Your task to perform on an android device: Show me the alarms in the clock app Image 0: 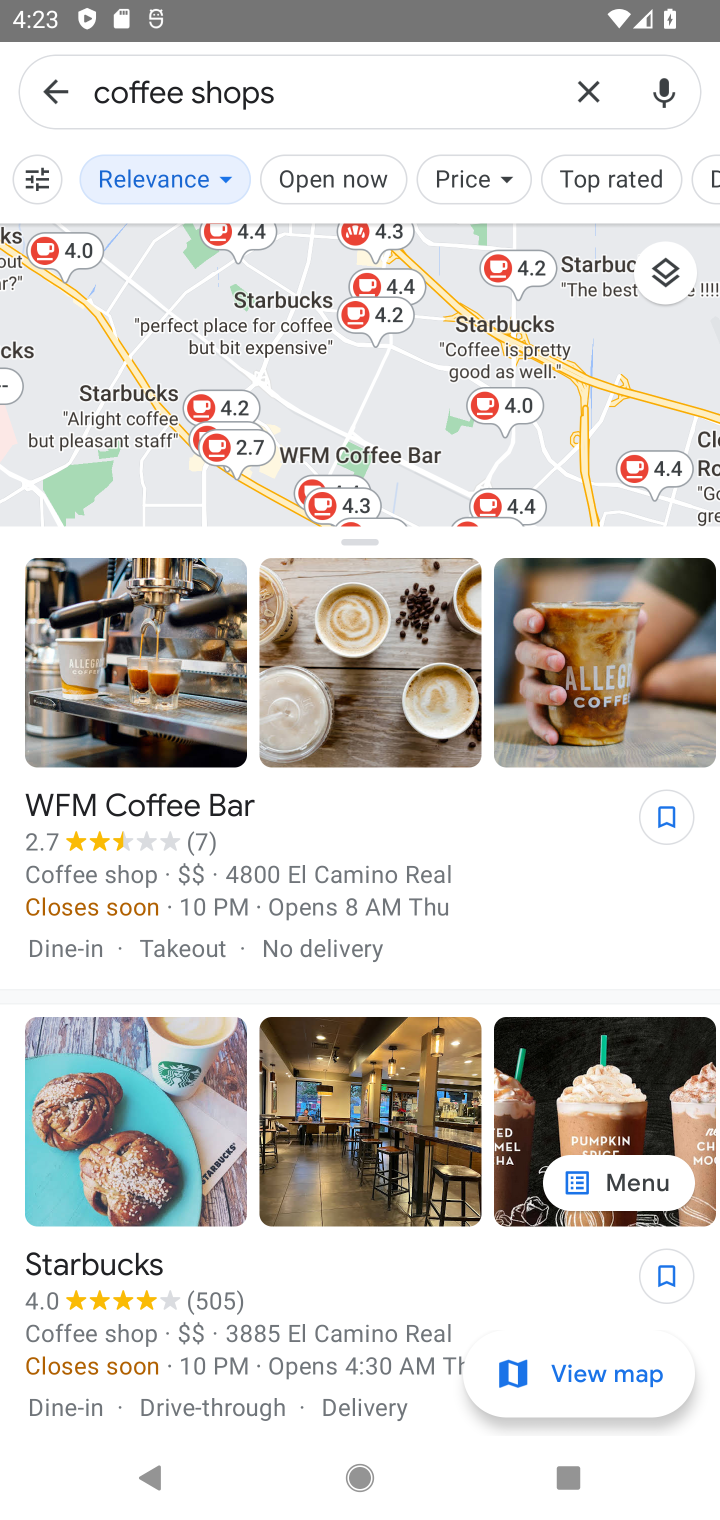
Step 0: press back button
Your task to perform on an android device: Show me the alarms in the clock app Image 1: 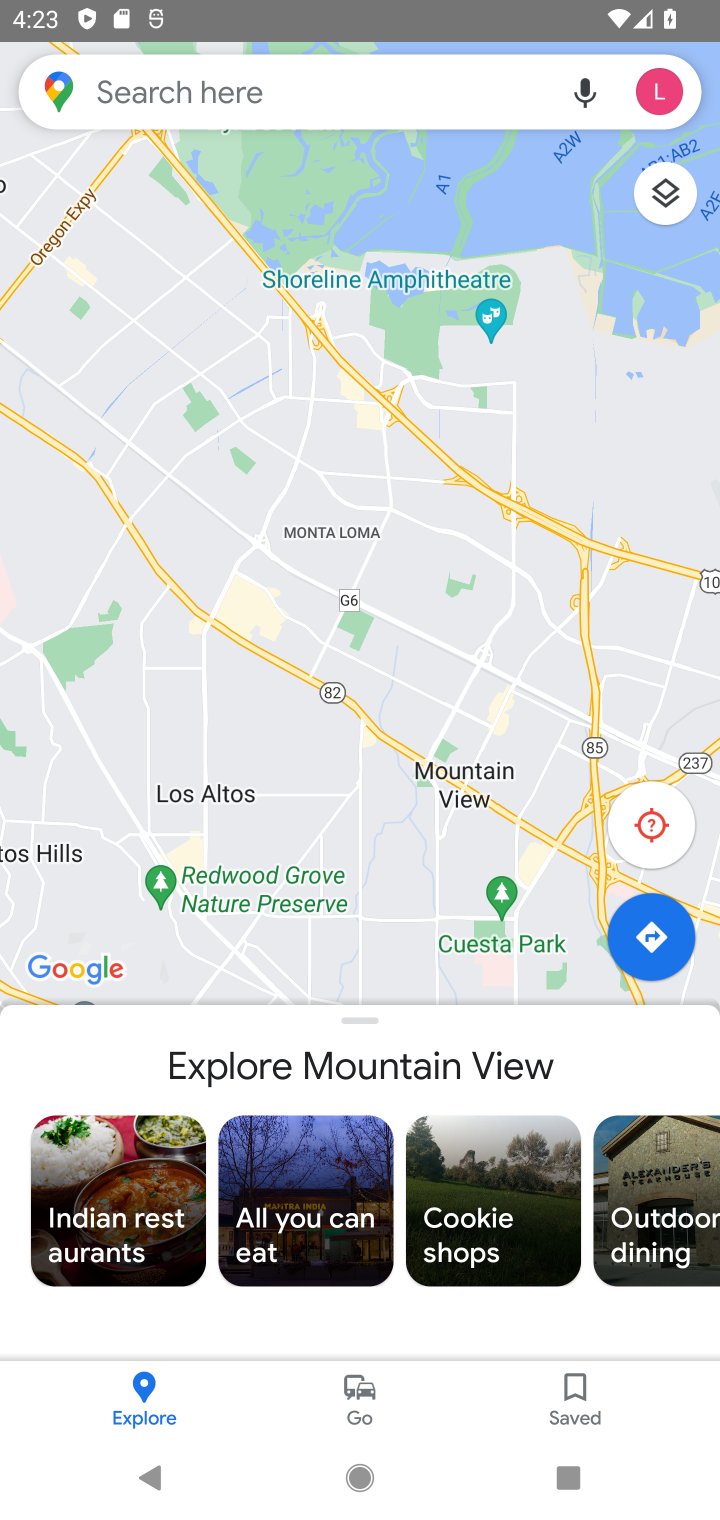
Step 1: press back button
Your task to perform on an android device: Show me the alarms in the clock app Image 2: 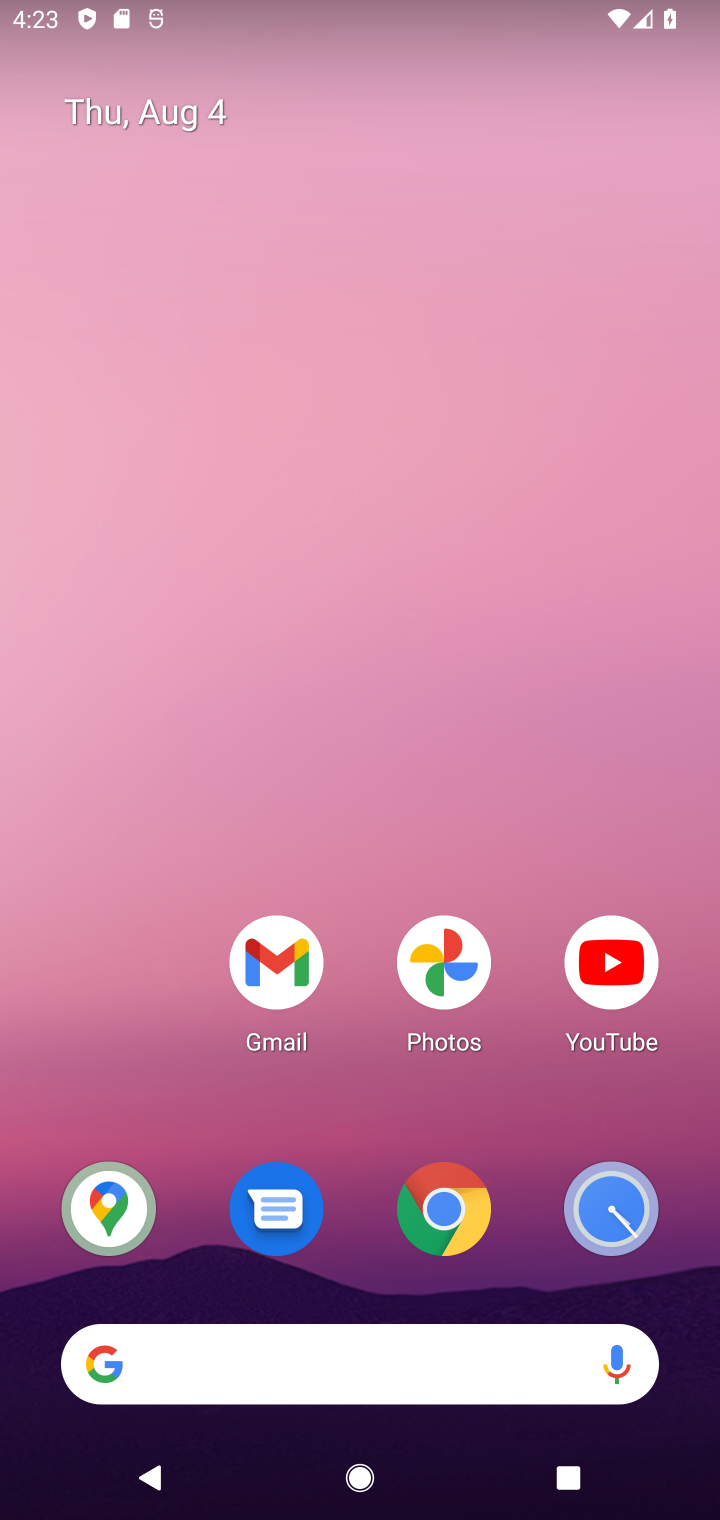
Step 2: click (608, 1202)
Your task to perform on an android device: Show me the alarms in the clock app Image 3: 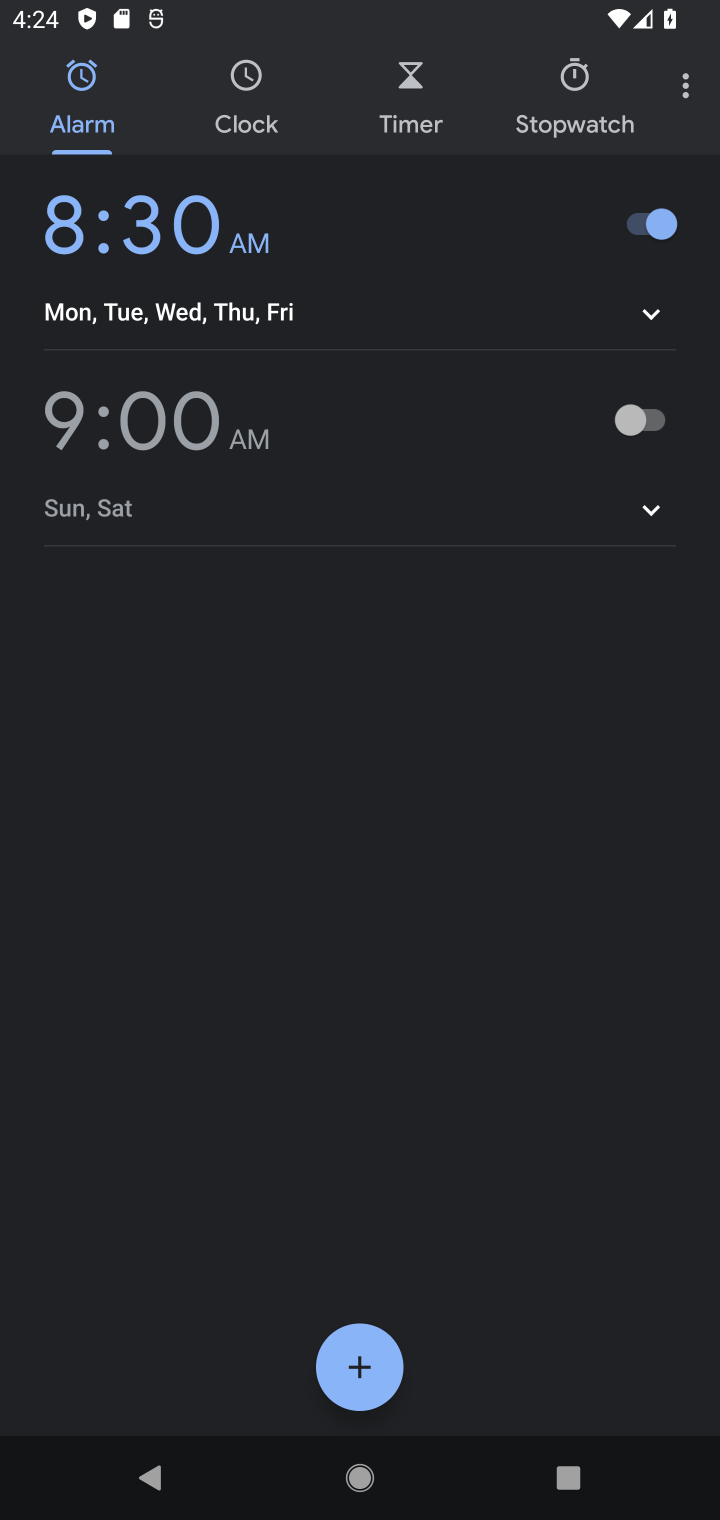
Step 3: task complete